Your task to perform on an android device: Search for seafood restaurants on Google Maps Image 0: 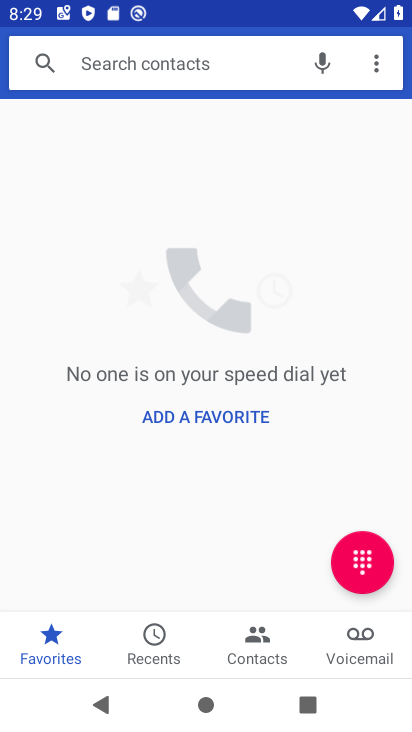
Step 0: press home button
Your task to perform on an android device: Search for seafood restaurants on Google Maps Image 1: 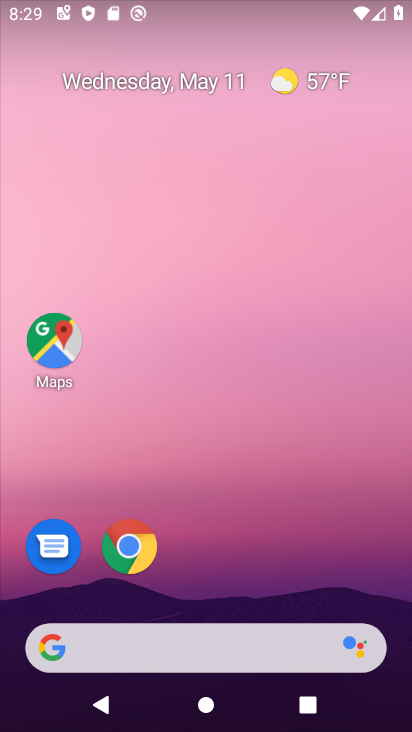
Step 1: drag from (218, 577) to (197, 150)
Your task to perform on an android device: Search for seafood restaurants on Google Maps Image 2: 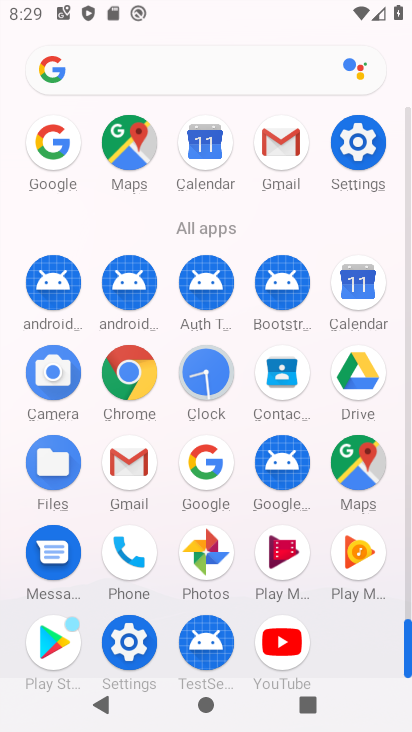
Step 2: click (115, 150)
Your task to perform on an android device: Search for seafood restaurants on Google Maps Image 3: 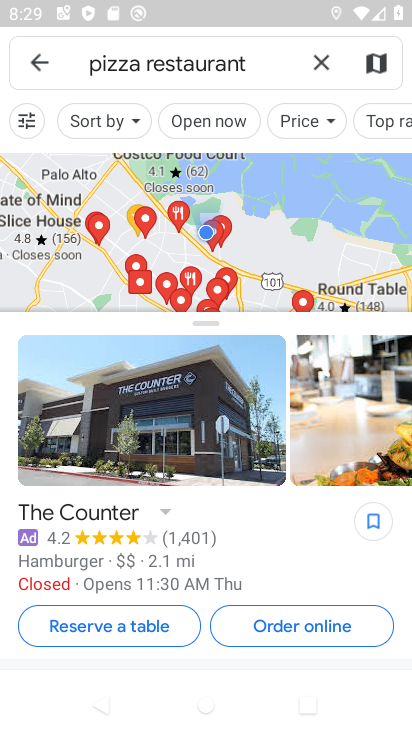
Step 3: click (311, 59)
Your task to perform on an android device: Search for seafood restaurants on Google Maps Image 4: 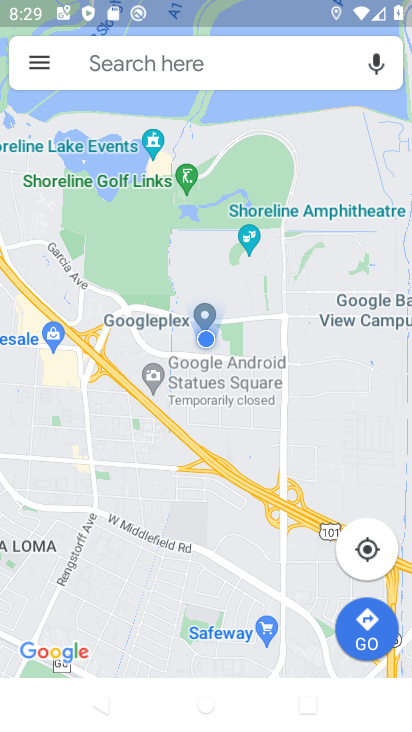
Step 4: click (178, 63)
Your task to perform on an android device: Search for seafood restaurants on Google Maps Image 5: 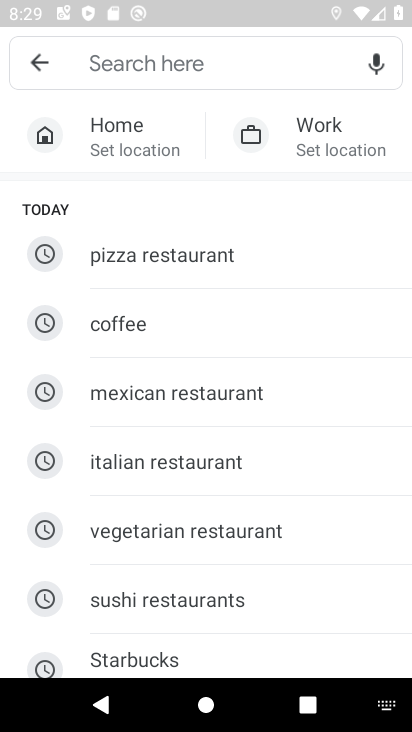
Step 5: type "seafood restaurants"
Your task to perform on an android device: Search for seafood restaurants on Google Maps Image 6: 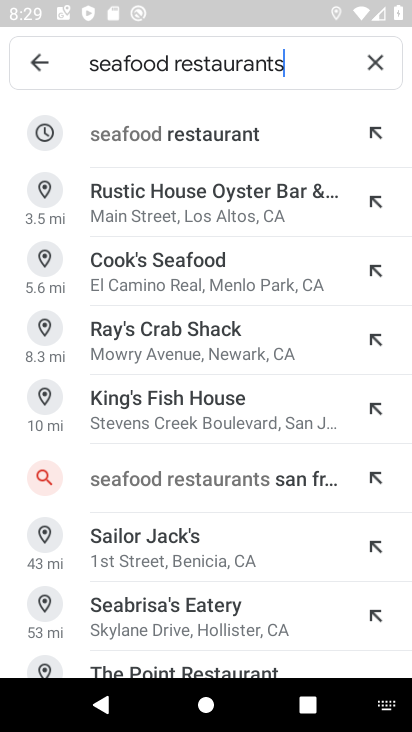
Step 6: click (142, 141)
Your task to perform on an android device: Search for seafood restaurants on Google Maps Image 7: 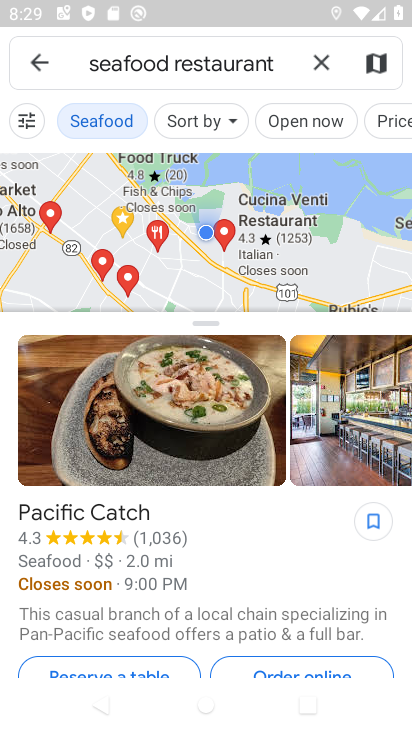
Step 7: task complete